Your task to perform on an android device: toggle notification dots Image 0: 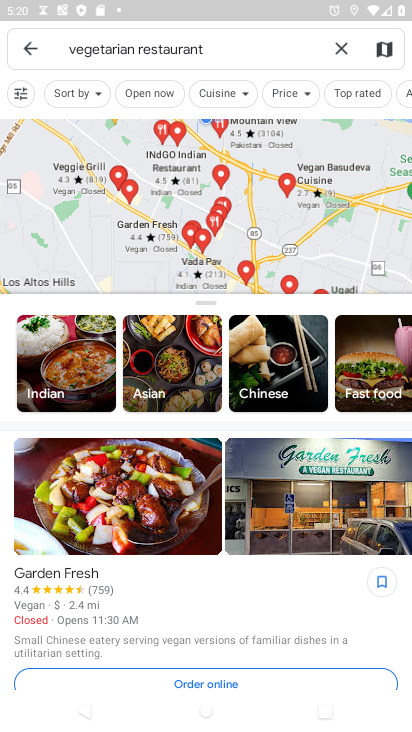
Step 0: press home button
Your task to perform on an android device: toggle notification dots Image 1: 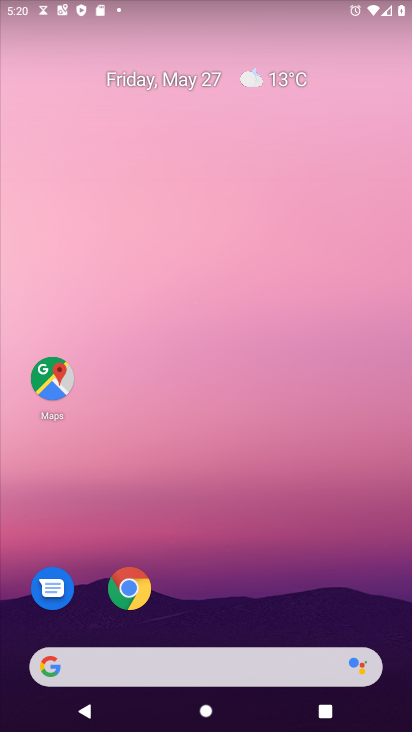
Step 1: drag from (234, 565) to (253, 63)
Your task to perform on an android device: toggle notification dots Image 2: 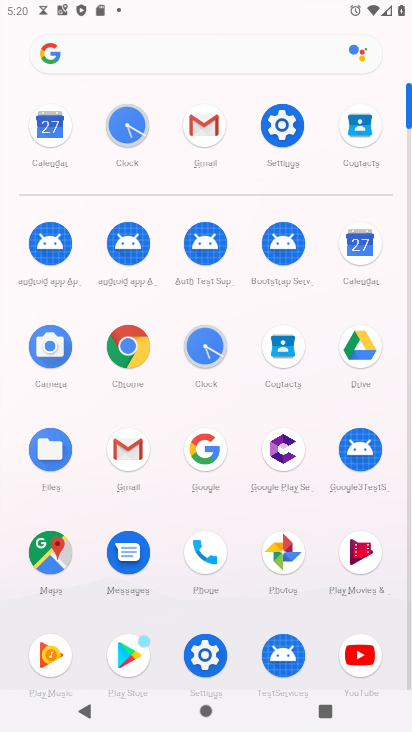
Step 2: click (280, 121)
Your task to perform on an android device: toggle notification dots Image 3: 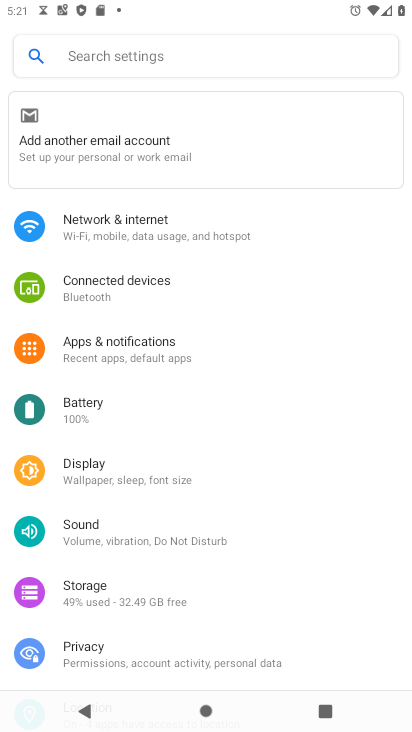
Step 3: click (176, 337)
Your task to perform on an android device: toggle notification dots Image 4: 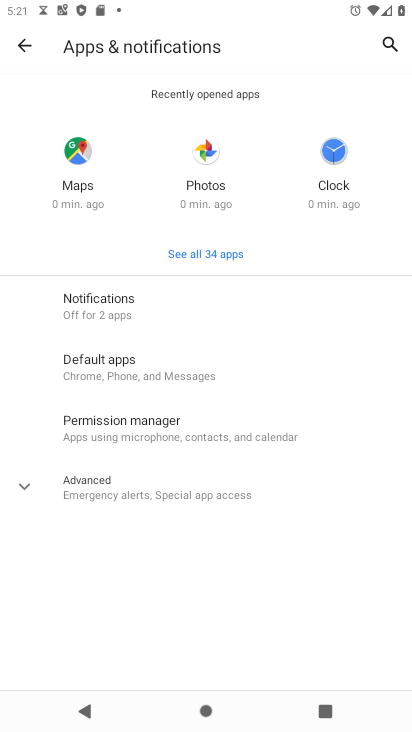
Step 4: click (151, 305)
Your task to perform on an android device: toggle notification dots Image 5: 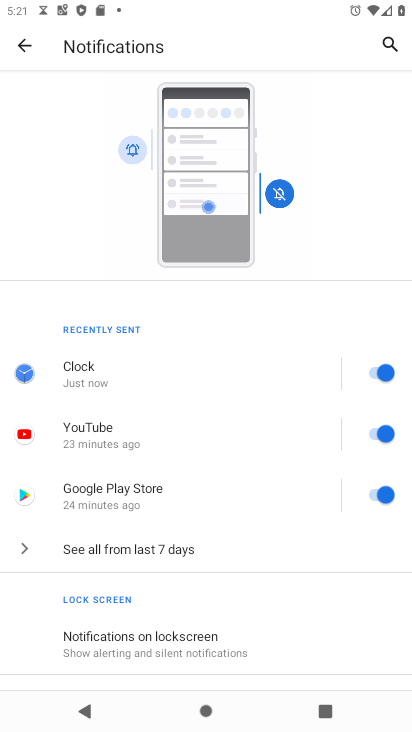
Step 5: drag from (196, 620) to (253, 166)
Your task to perform on an android device: toggle notification dots Image 6: 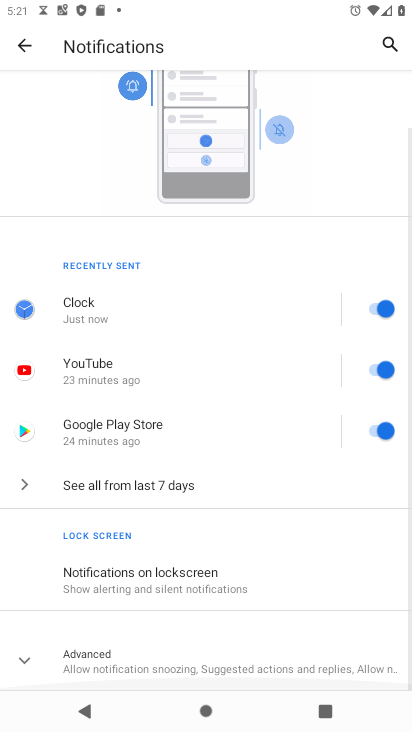
Step 6: click (108, 648)
Your task to perform on an android device: toggle notification dots Image 7: 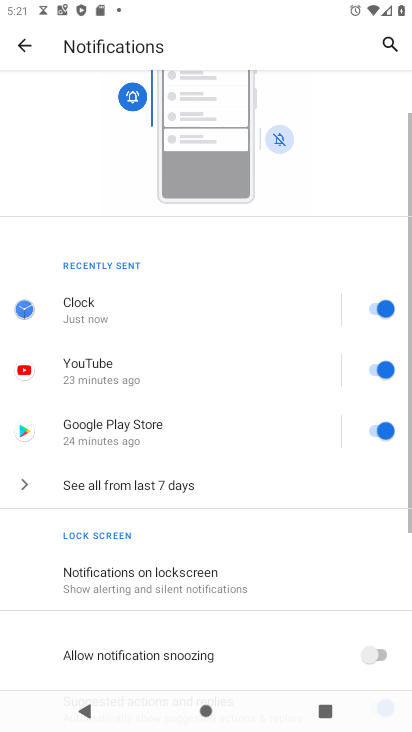
Step 7: drag from (143, 610) to (198, 209)
Your task to perform on an android device: toggle notification dots Image 8: 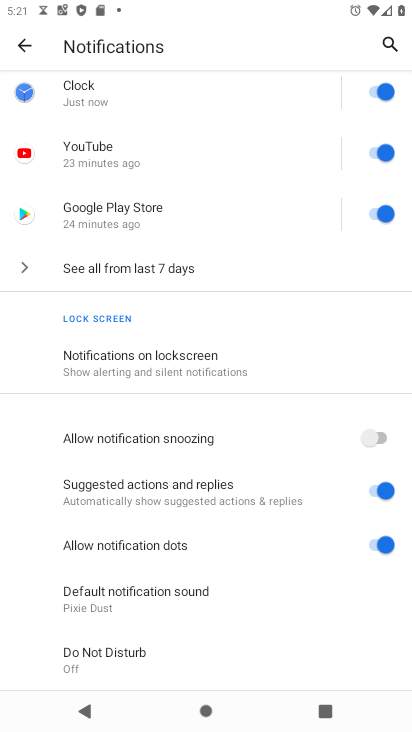
Step 8: click (382, 545)
Your task to perform on an android device: toggle notification dots Image 9: 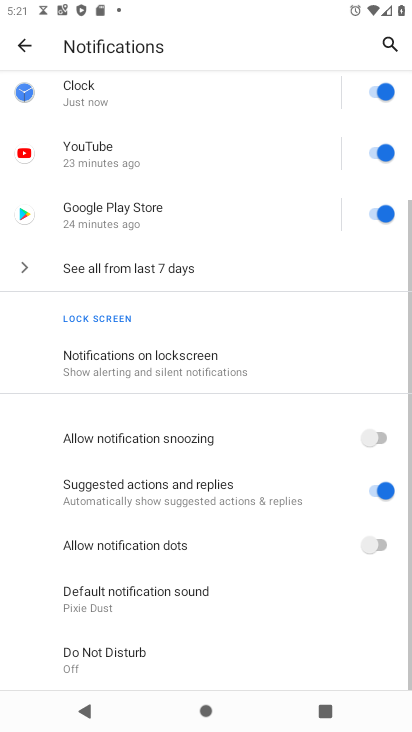
Step 9: task complete